Your task to perform on an android device: check android version Image 0: 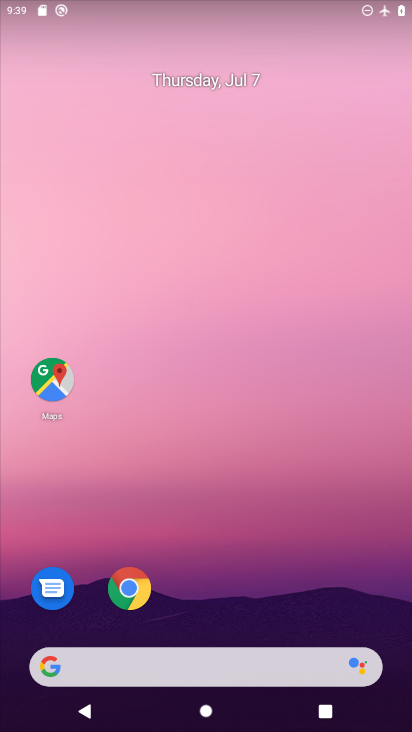
Step 0: drag from (231, 11) to (204, 724)
Your task to perform on an android device: check android version Image 1: 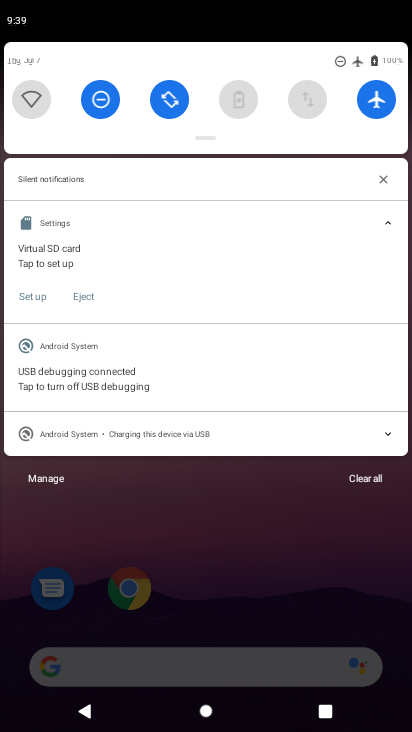
Step 1: drag from (209, 63) to (217, 674)
Your task to perform on an android device: check android version Image 2: 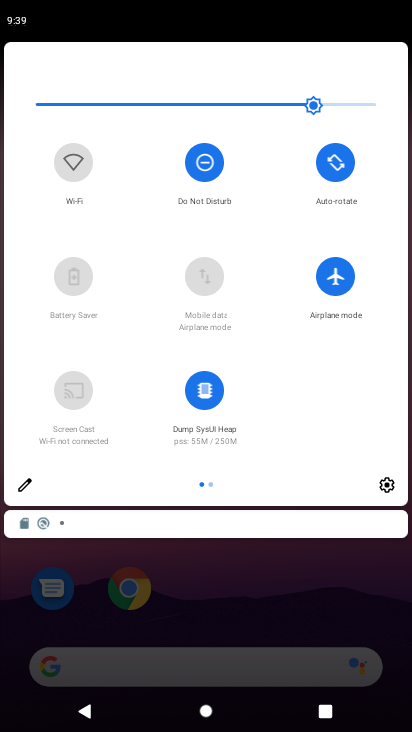
Step 2: click (389, 479)
Your task to perform on an android device: check android version Image 3: 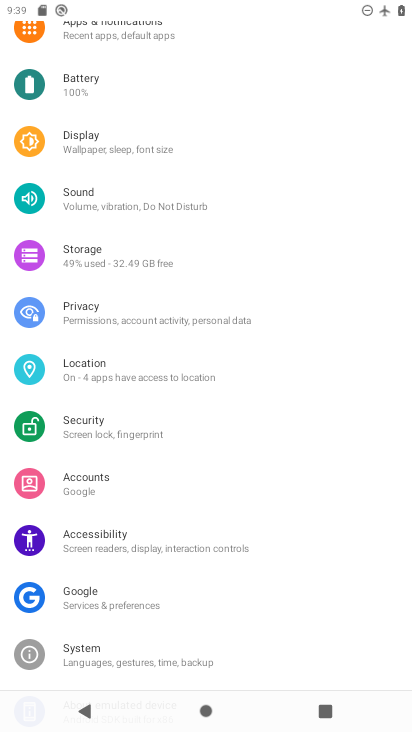
Step 3: drag from (178, 627) to (198, 172)
Your task to perform on an android device: check android version Image 4: 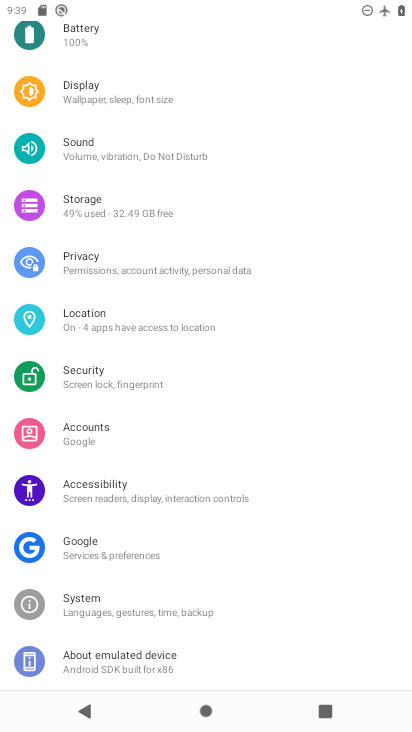
Step 4: click (118, 652)
Your task to perform on an android device: check android version Image 5: 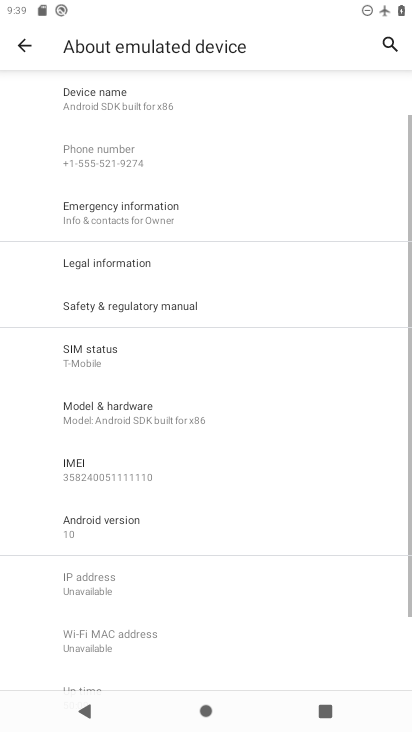
Step 5: click (139, 534)
Your task to perform on an android device: check android version Image 6: 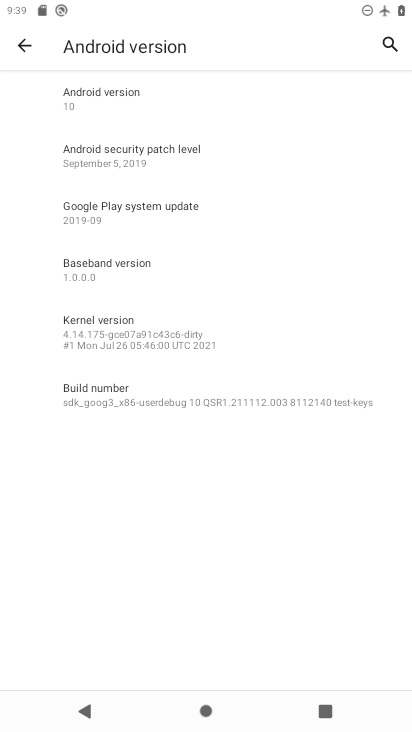
Step 6: task complete